Your task to perform on an android device: allow cookies in the chrome app Image 0: 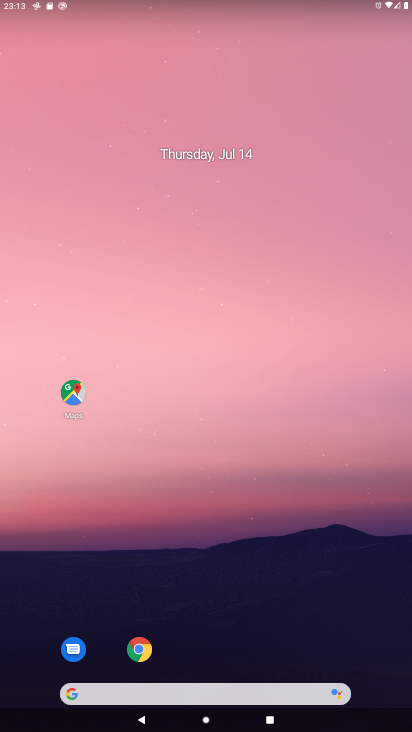
Step 0: click (140, 654)
Your task to perform on an android device: allow cookies in the chrome app Image 1: 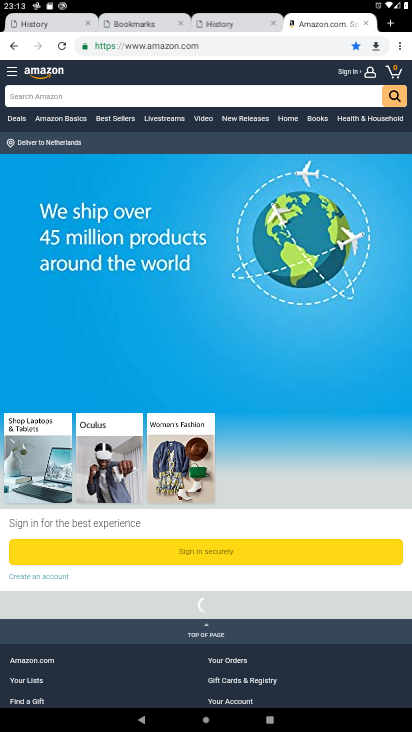
Step 1: click (401, 45)
Your task to perform on an android device: allow cookies in the chrome app Image 2: 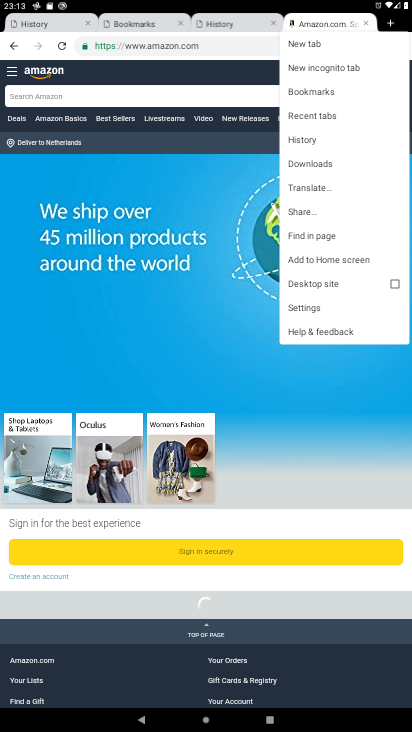
Step 2: click (311, 308)
Your task to perform on an android device: allow cookies in the chrome app Image 3: 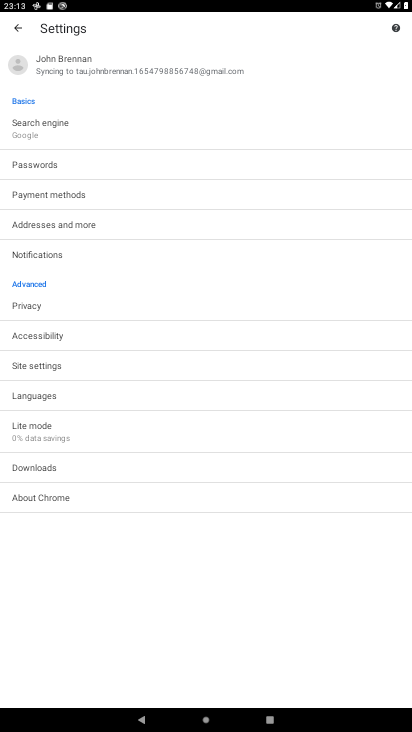
Step 3: click (59, 365)
Your task to perform on an android device: allow cookies in the chrome app Image 4: 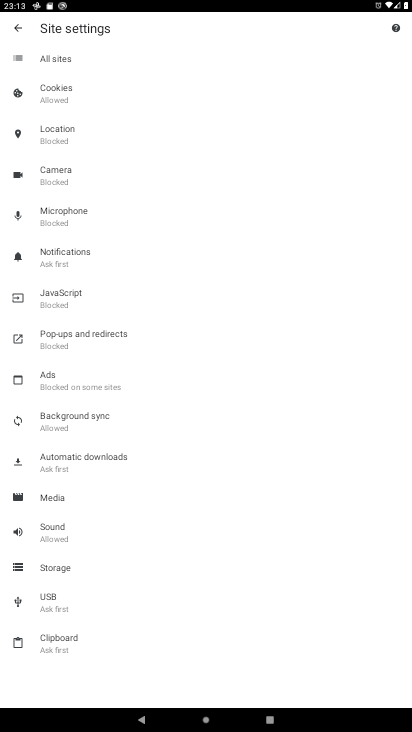
Step 4: click (60, 99)
Your task to perform on an android device: allow cookies in the chrome app Image 5: 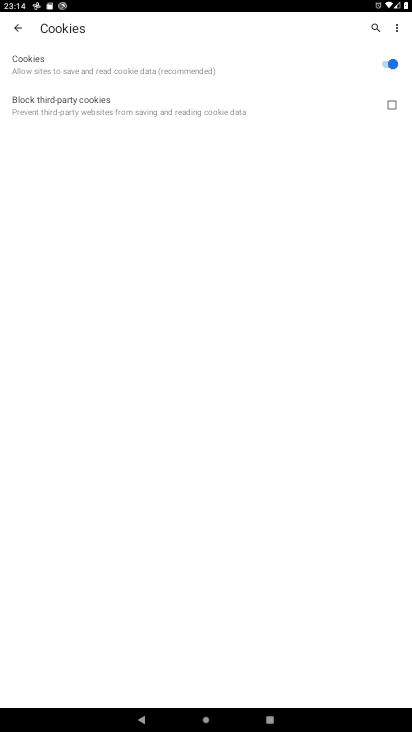
Step 5: task complete